Your task to perform on an android device: snooze an email in the gmail app Image 0: 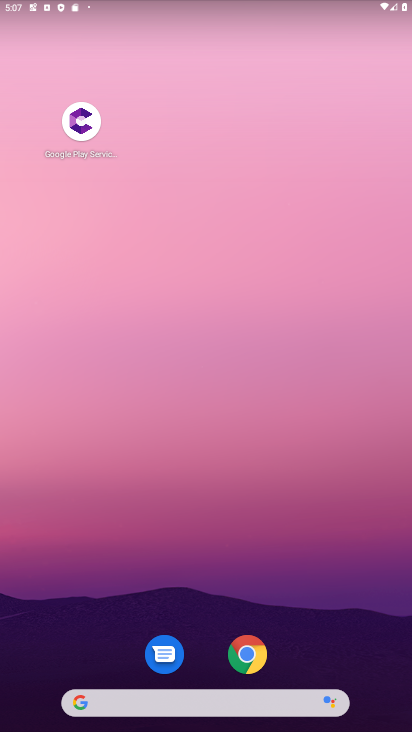
Step 0: drag from (201, 645) to (259, 449)
Your task to perform on an android device: snooze an email in the gmail app Image 1: 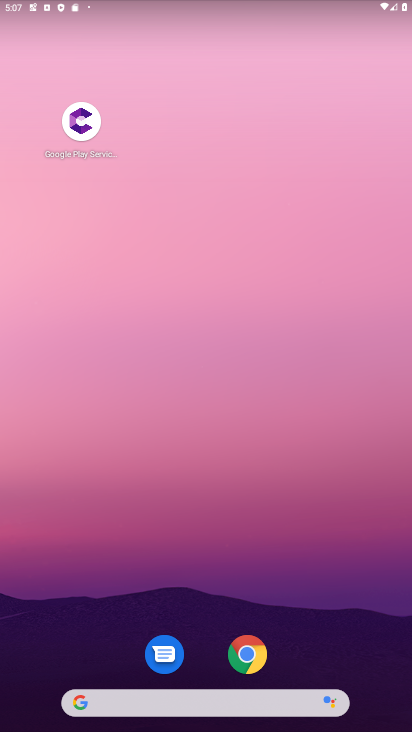
Step 1: drag from (207, 673) to (312, 183)
Your task to perform on an android device: snooze an email in the gmail app Image 2: 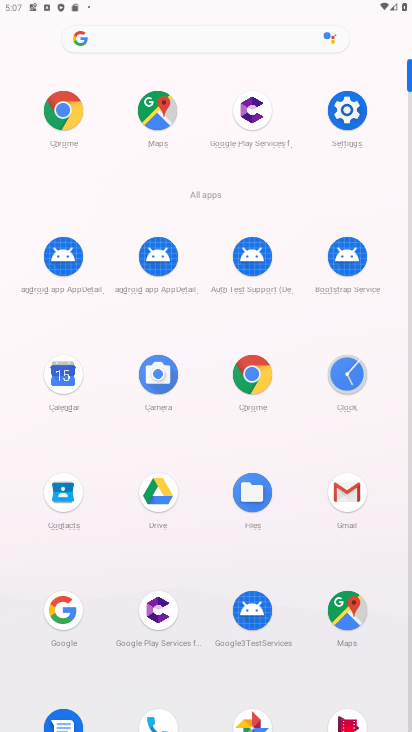
Step 2: click (362, 484)
Your task to perform on an android device: snooze an email in the gmail app Image 3: 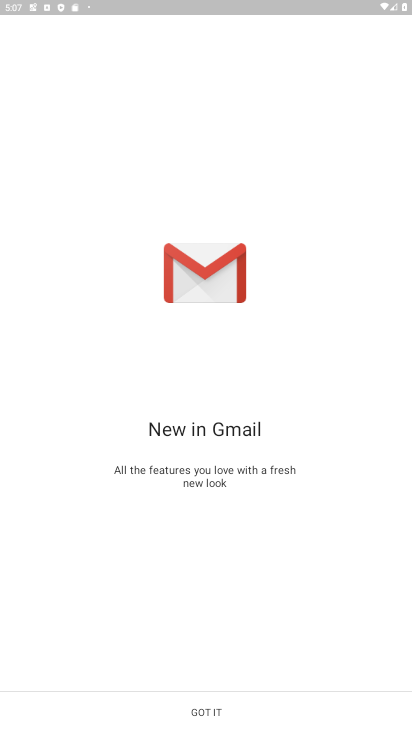
Step 3: click (173, 707)
Your task to perform on an android device: snooze an email in the gmail app Image 4: 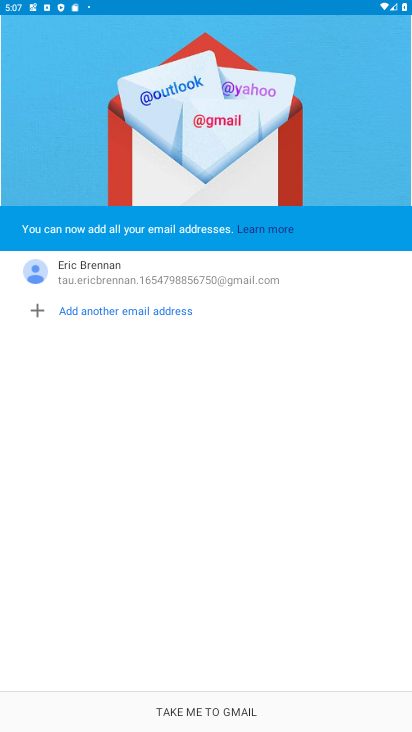
Step 4: click (223, 721)
Your task to perform on an android device: snooze an email in the gmail app Image 5: 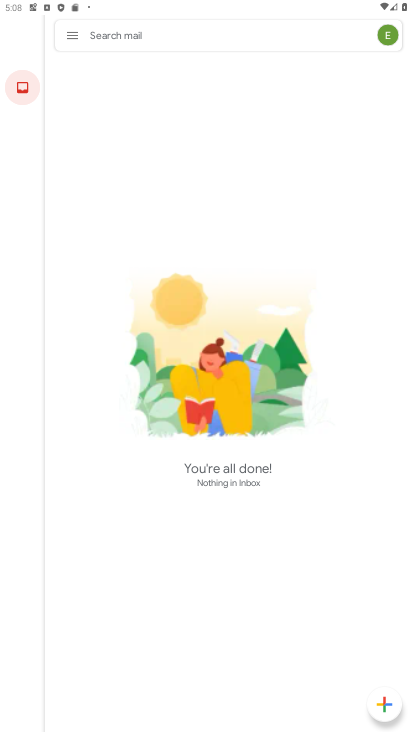
Step 5: click (73, 36)
Your task to perform on an android device: snooze an email in the gmail app Image 6: 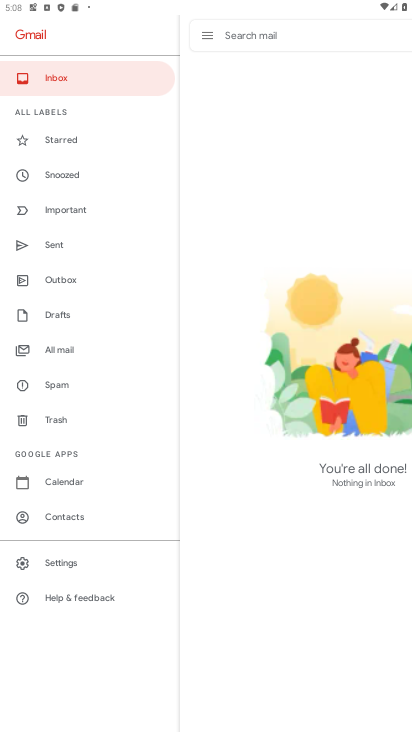
Step 6: task complete